Your task to perform on an android device: open the mobile data screen to see how much data has been used Image 0: 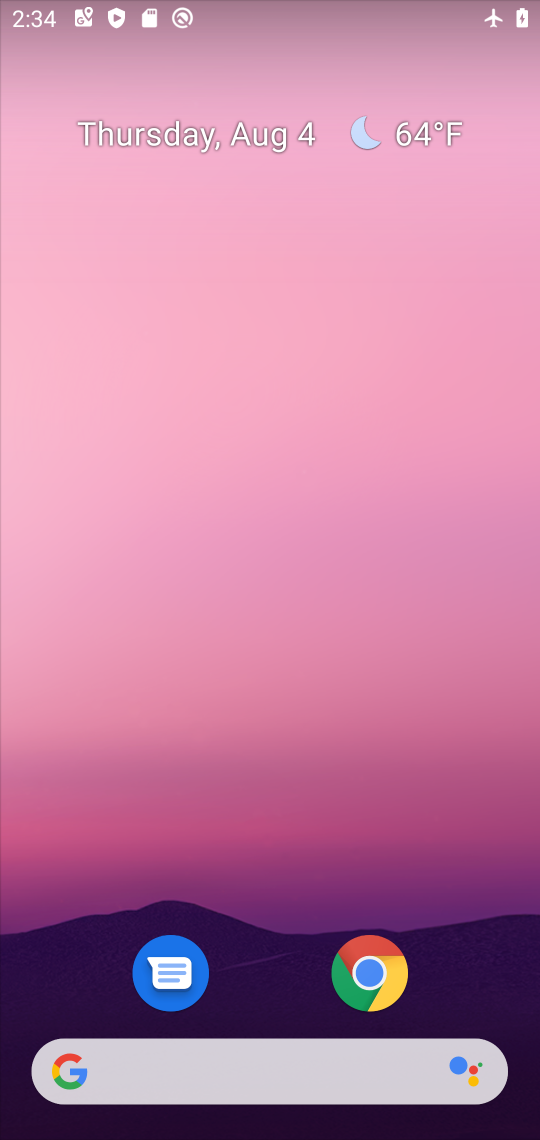
Step 0: drag from (296, 19) to (502, 557)
Your task to perform on an android device: open the mobile data screen to see how much data has been used Image 1: 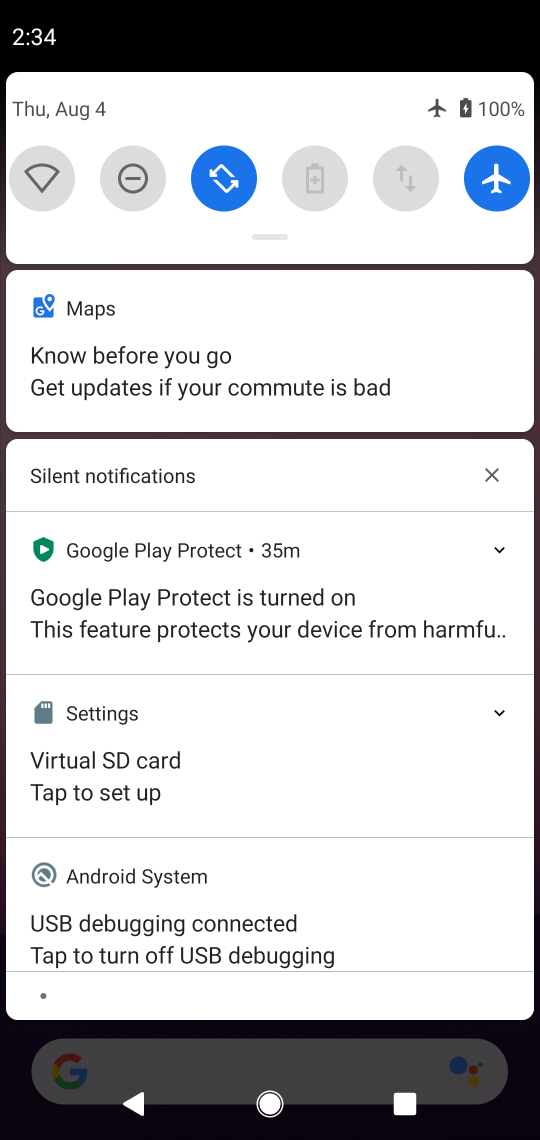
Step 1: press back button
Your task to perform on an android device: open the mobile data screen to see how much data has been used Image 2: 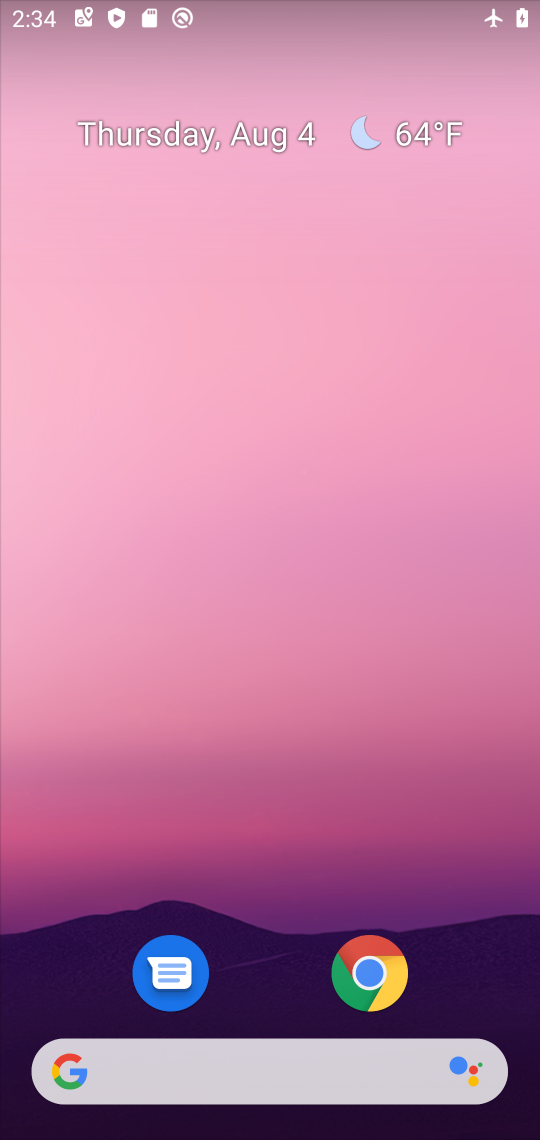
Step 2: drag from (320, 1006) to (262, 11)
Your task to perform on an android device: open the mobile data screen to see how much data has been used Image 3: 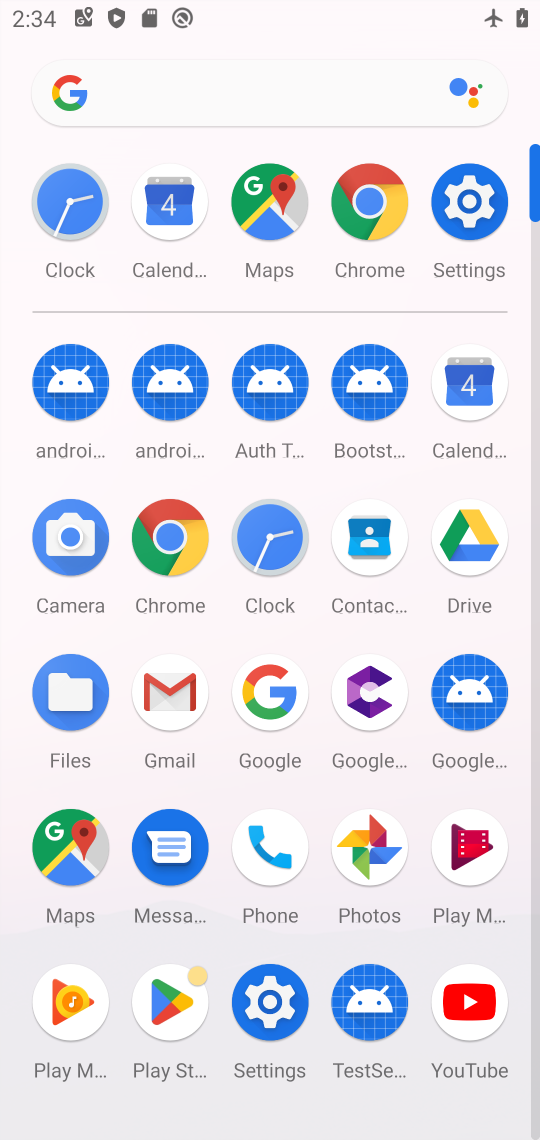
Step 3: click (248, 1014)
Your task to perform on an android device: open the mobile data screen to see how much data has been used Image 4: 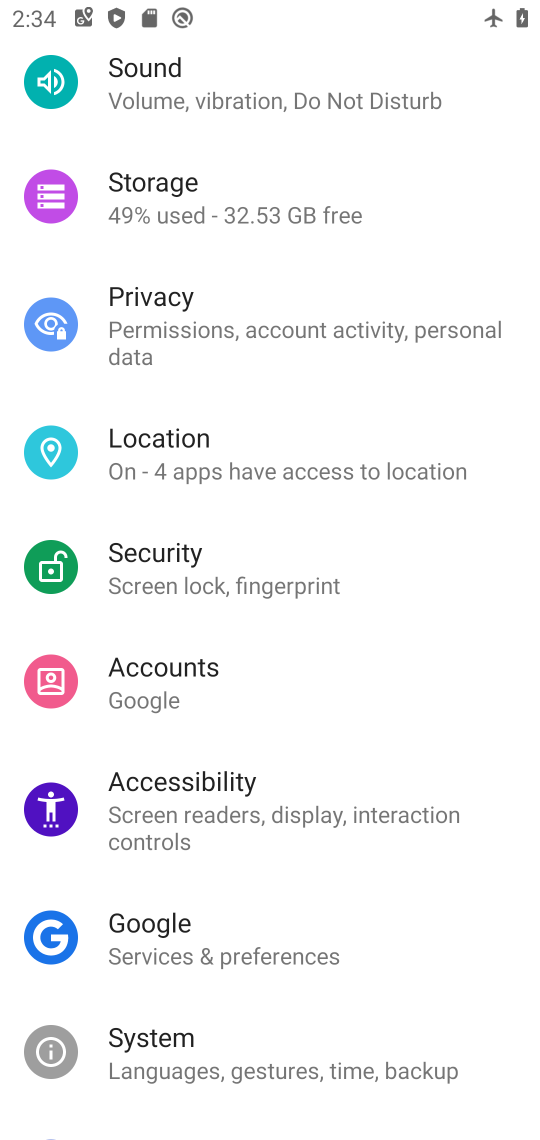
Step 4: drag from (183, 195) to (200, 826)
Your task to perform on an android device: open the mobile data screen to see how much data has been used Image 5: 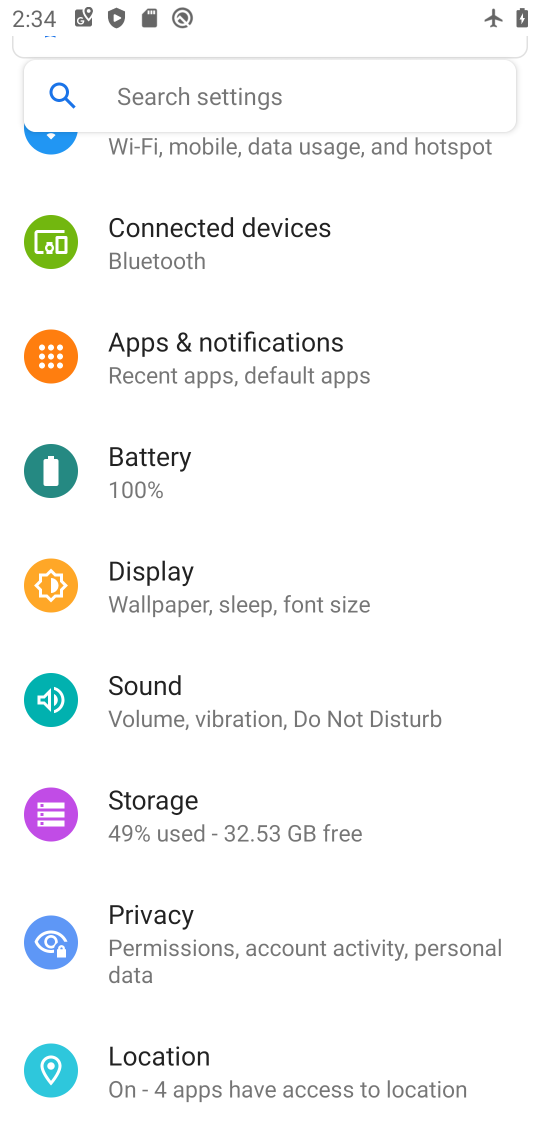
Step 5: drag from (248, 461) to (189, 818)
Your task to perform on an android device: open the mobile data screen to see how much data has been used Image 6: 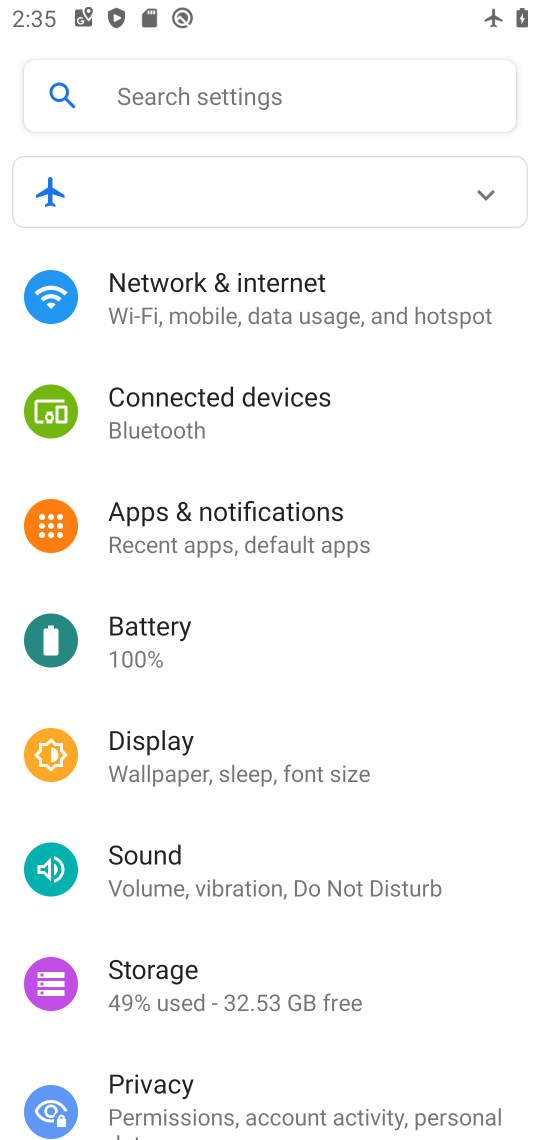
Step 6: click (215, 295)
Your task to perform on an android device: open the mobile data screen to see how much data has been used Image 7: 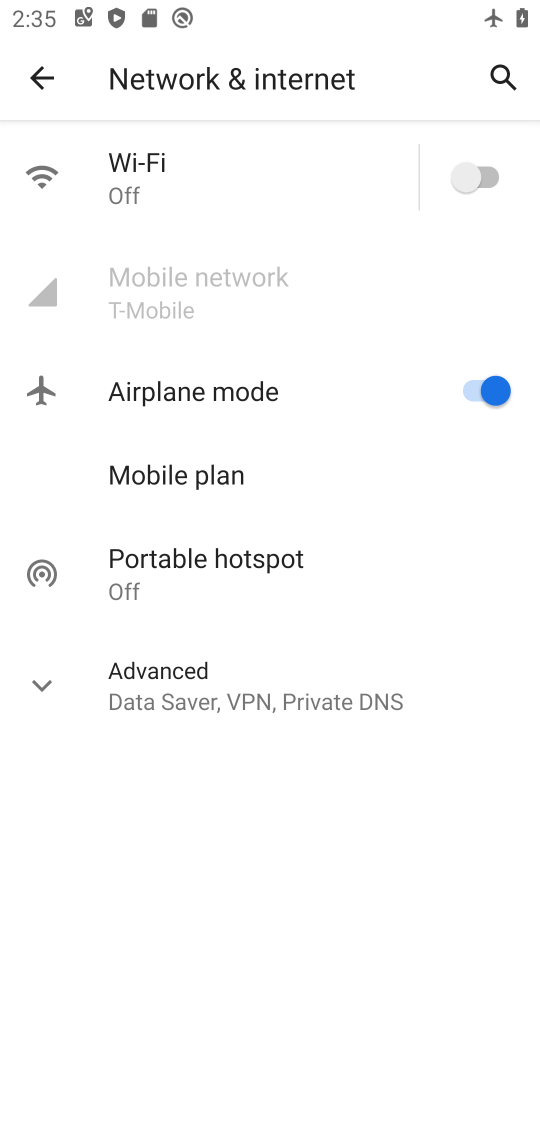
Step 7: task complete